Your task to perform on an android device: check google app version Image 0: 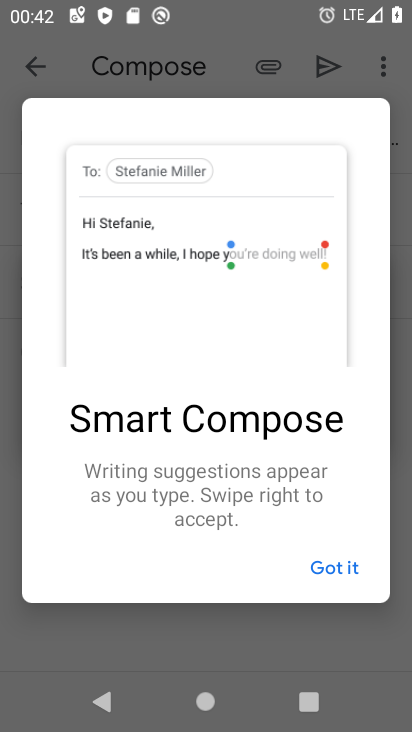
Step 0: press home button
Your task to perform on an android device: check google app version Image 1: 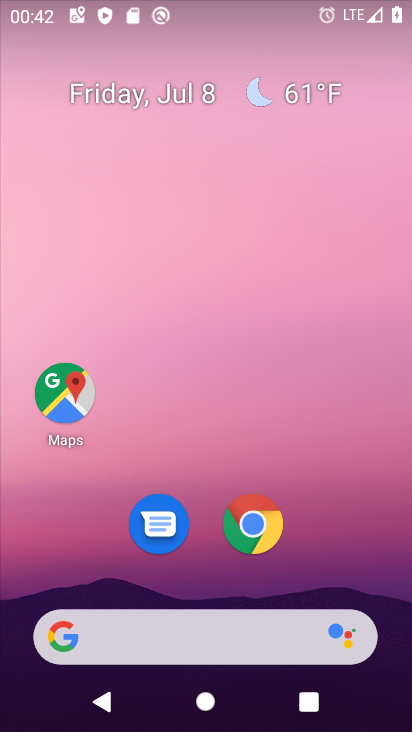
Step 1: drag from (323, 551) to (304, 47)
Your task to perform on an android device: check google app version Image 2: 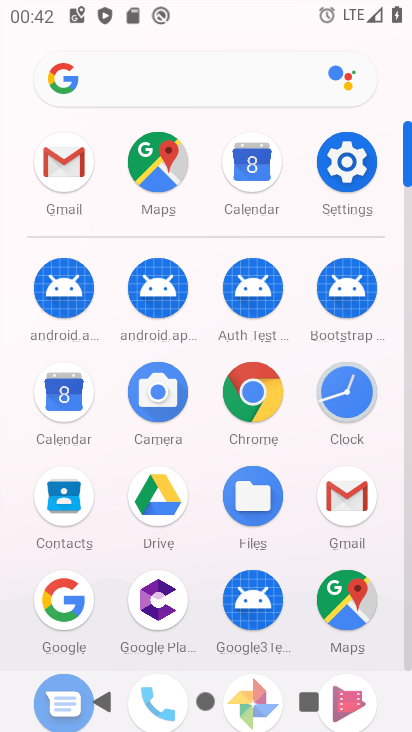
Step 2: click (167, 170)
Your task to perform on an android device: check google app version Image 3: 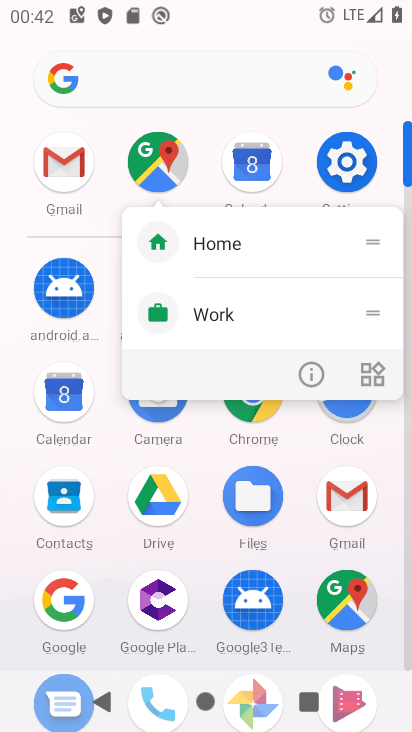
Step 3: click (154, 152)
Your task to perform on an android device: check google app version Image 4: 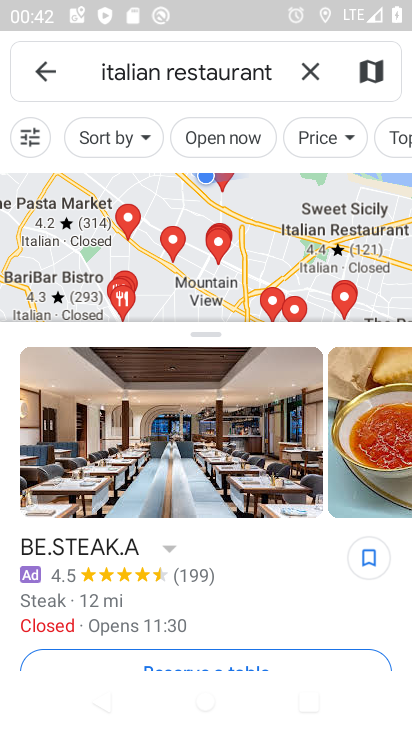
Step 4: click (50, 70)
Your task to perform on an android device: check google app version Image 5: 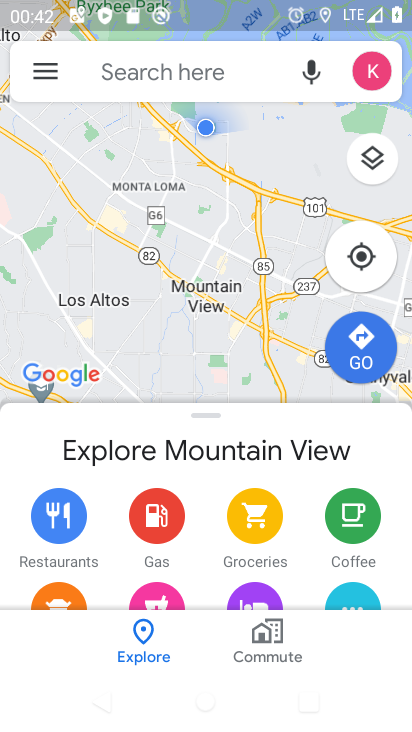
Step 5: press home button
Your task to perform on an android device: check google app version Image 6: 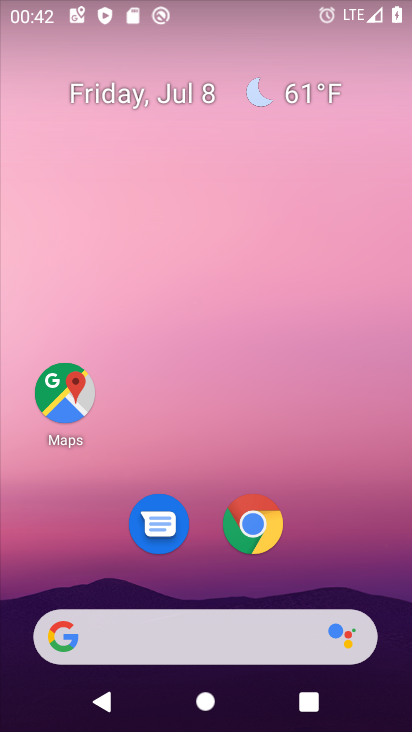
Step 6: drag from (331, 549) to (261, 13)
Your task to perform on an android device: check google app version Image 7: 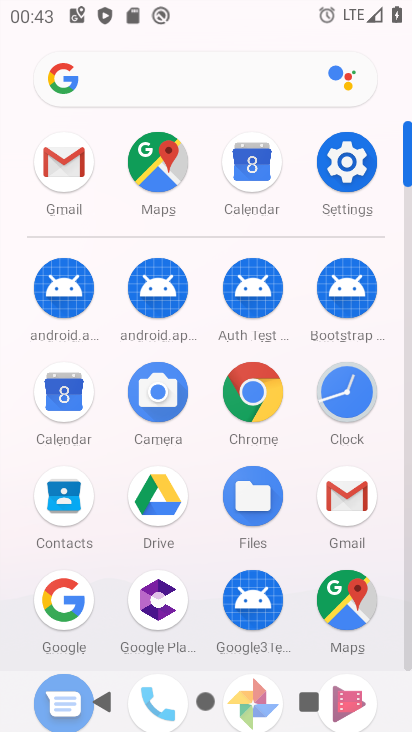
Step 7: click (69, 592)
Your task to perform on an android device: check google app version Image 8: 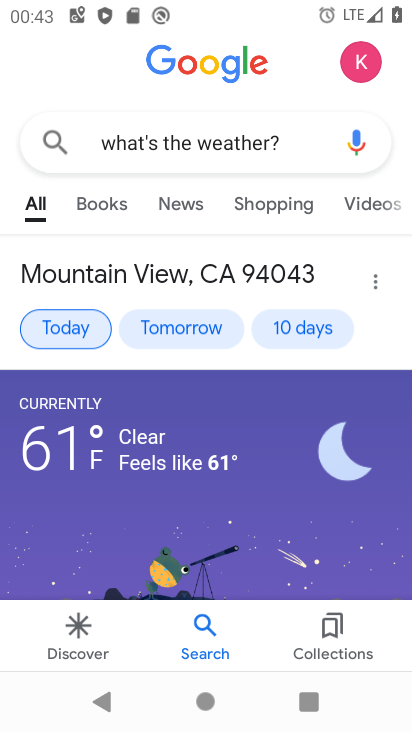
Step 8: click (379, 274)
Your task to perform on an android device: check google app version Image 9: 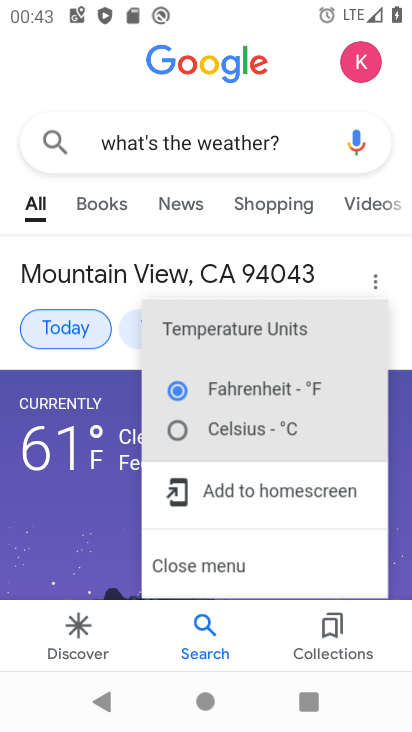
Step 9: click (383, 255)
Your task to perform on an android device: check google app version Image 10: 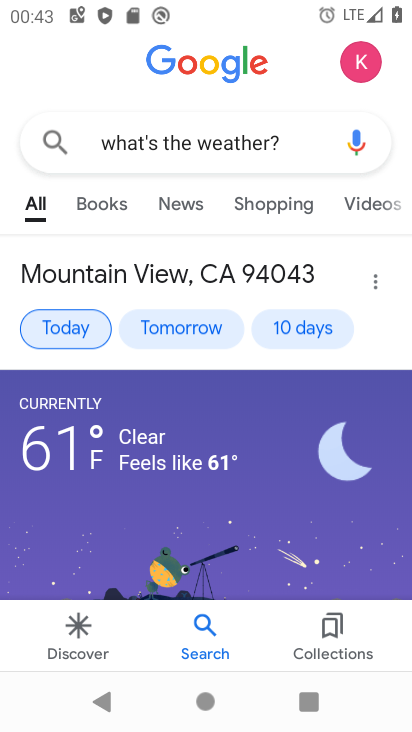
Step 10: drag from (365, 639) to (152, 631)
Your task to perform on an android device: check google app version Image 11: 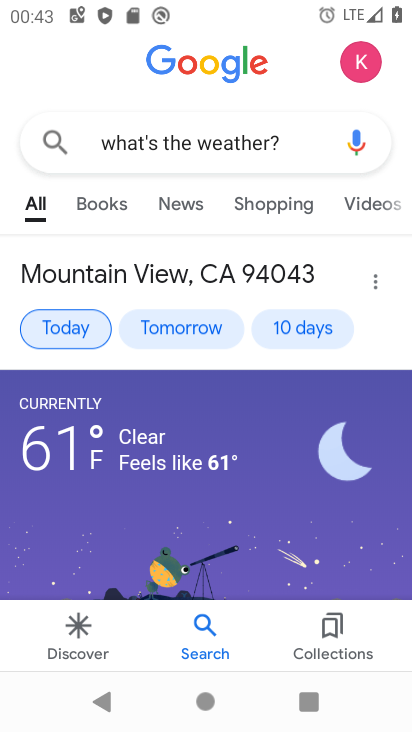
Step 11: click (365, 64)
Your task to perform on an android device: check google app version Image 12: 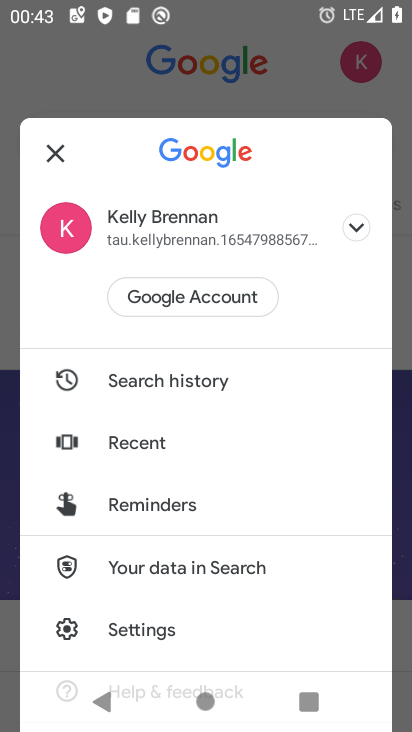
Step 12: drag from (233, 569) to (266, 338)
Your task to perform on an android device: check google app version Image 13: 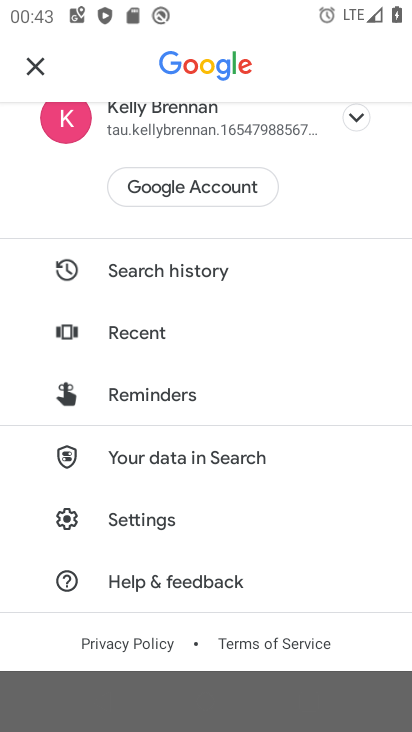
Step 13: click (164, 513)
Your task to perform on an android device: check google app version Image 14: 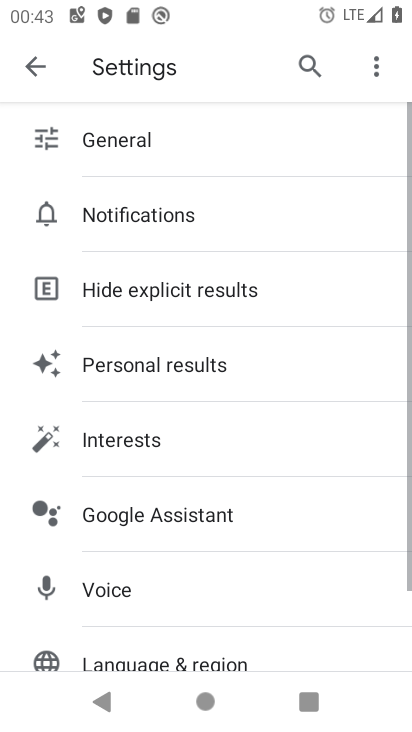
Step 14: drag from (267, 587) to (312, 330)
Your task to perform on an android device: check google app version Image 15: 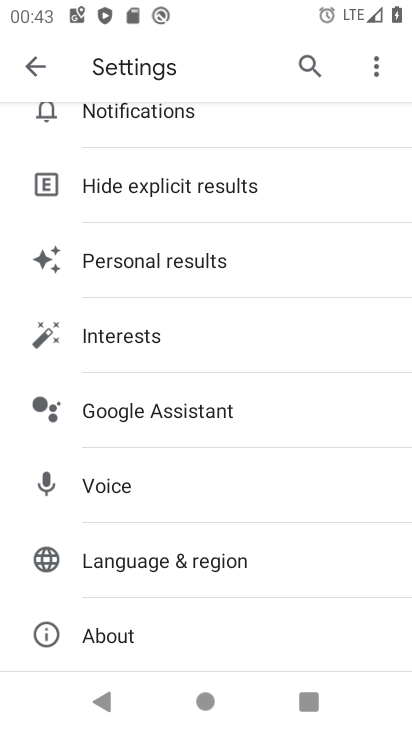
Step 15: click (109, 635)
Your task to perform on an android device: check google app version Image 16: 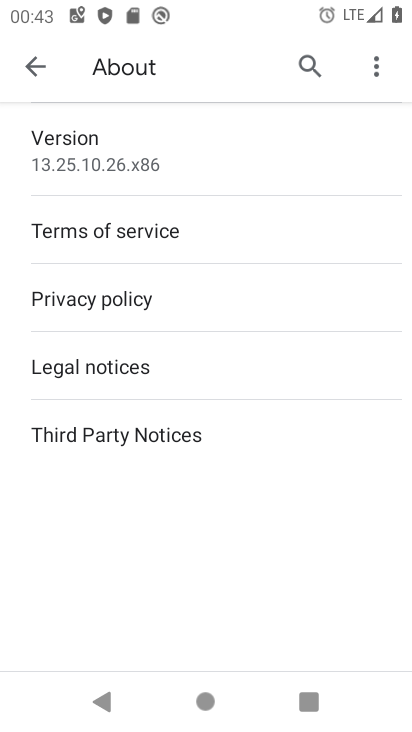
Step 16: task complete